Your task to perform on an android device: Open accessibility settings Image 0: 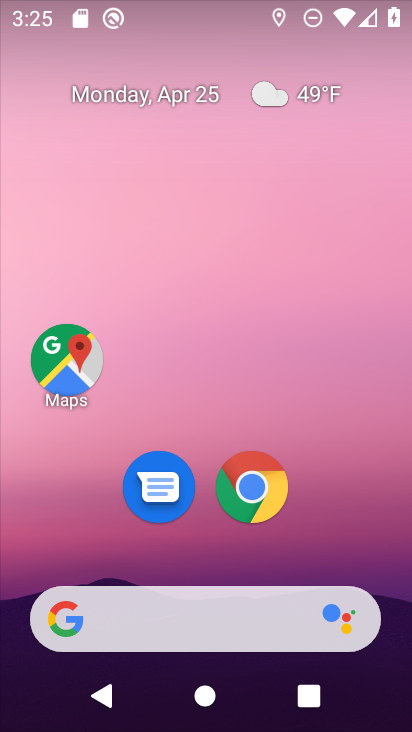
Step 0: drag from (384, 583) to (361, 0)
Your task to perform on an android device: Open accessibility settings Image 1: 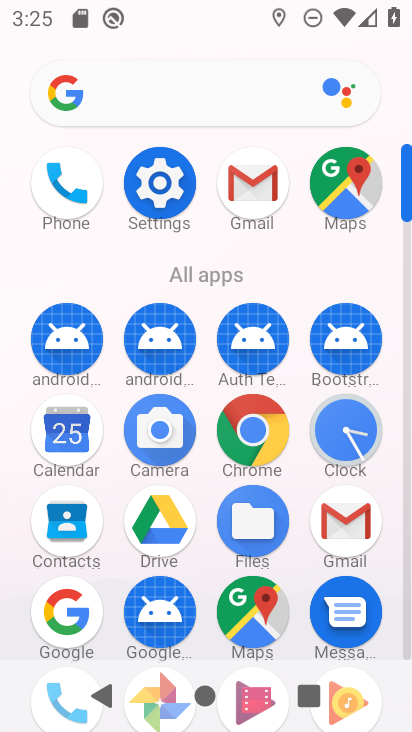
Step 1: click (152, 187)
Your task to perform on an android device: Open accessibility settings Image 2: 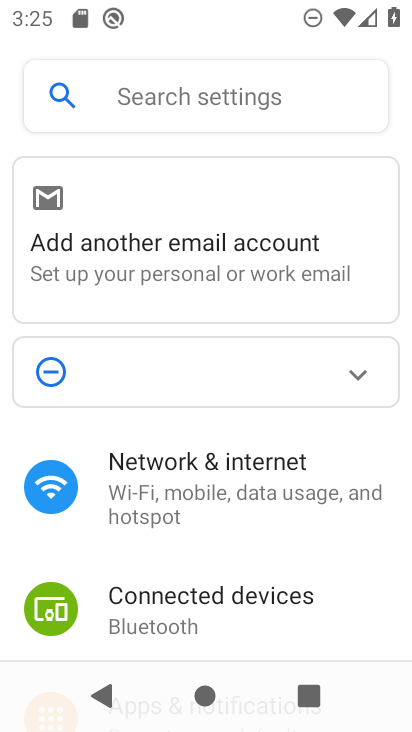
Step 2: drag from (355, 603) to (346, 155)
Your task to perform on an android device: Open accessibility settings Image 3: 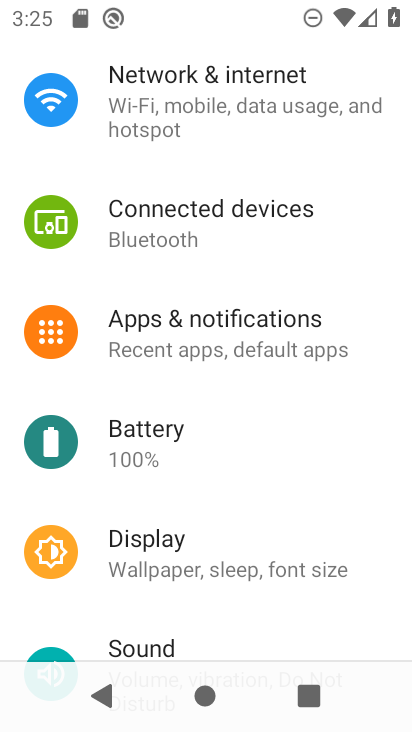
Step 3: drag from (385, 562) to (386, 361)
Your task to perform on an android device: Open accessibility settings Image 4: 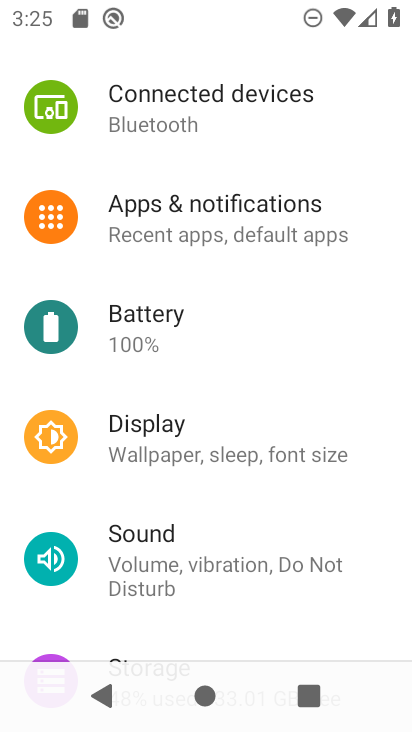
Step 4: drag from (360, 568) to (360, 210)
Your task to perform on an android device: Open accessibility settings Image 5: 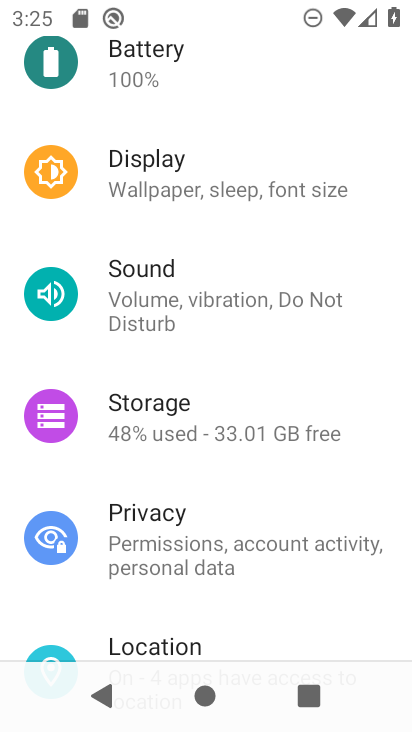
Step 5: drag from (292, 540) to (302, 310)
Your task to perform on an android device: Open accessibility settings Image 6: 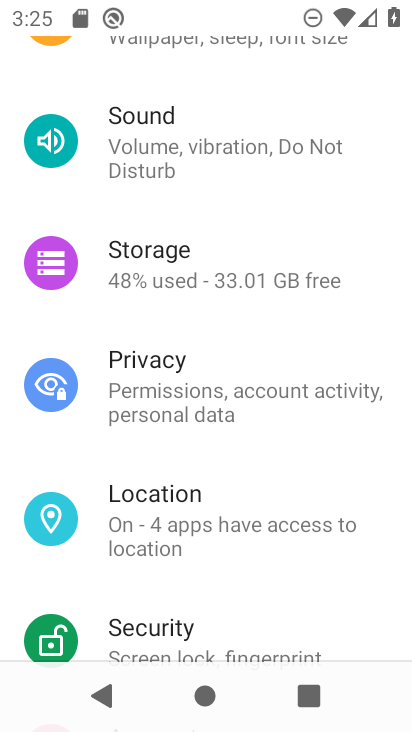
Step 6: drag from (377, 598) to (365, 225)
Your task to perform on an android device: Open accessibility settings Image 7: 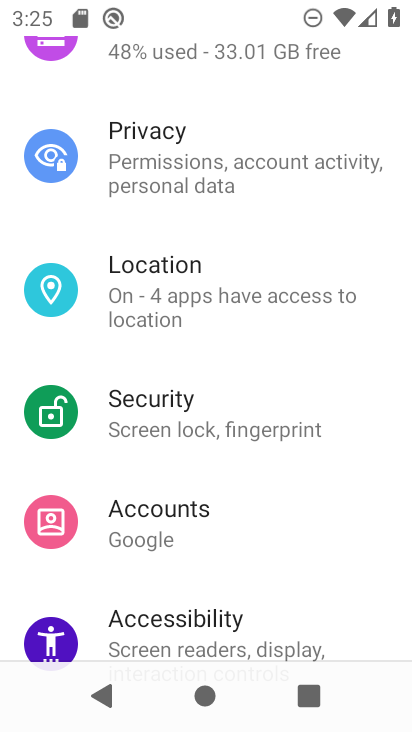
Step 7: click (154, 640)
Your task to perform on an android device: Open accessibility settings Image 8: 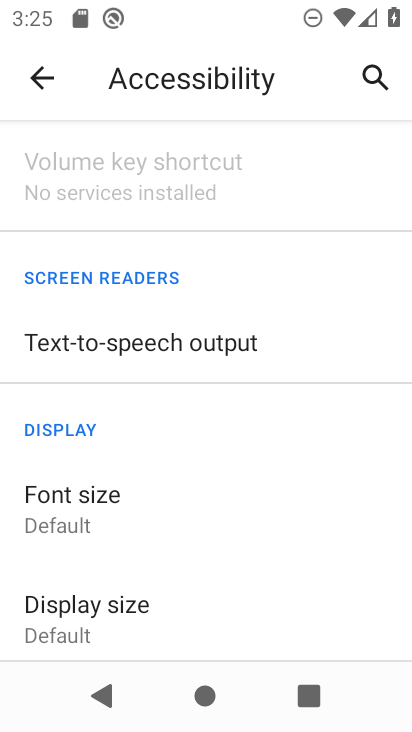
Step 8: task complete